Your task to perform on an android device: star an email in the gmail app Image 0: 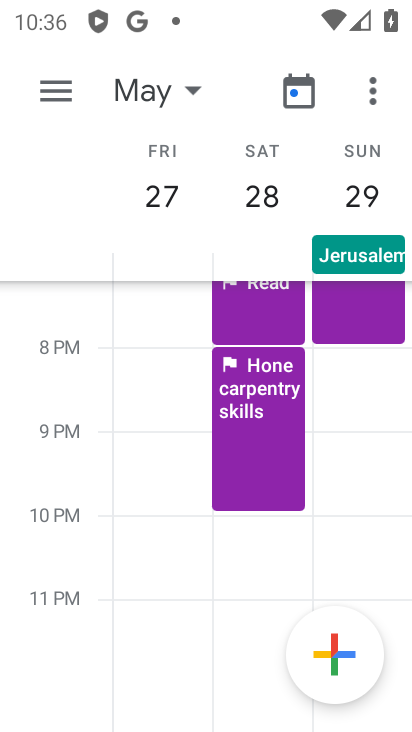
Step 0: press home button
Your task to perform on an android device: star an email in the gmail app Image 1: 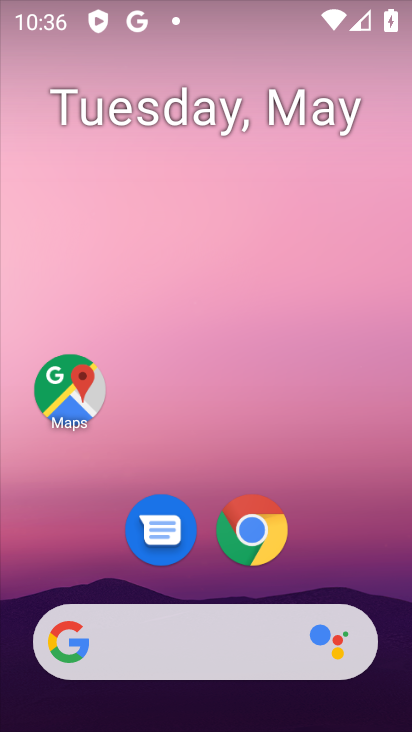
Step 1: drag from (259, 387) to (202, 137)
Your task to perform on an android device: star an email in the gmail app Image 2: 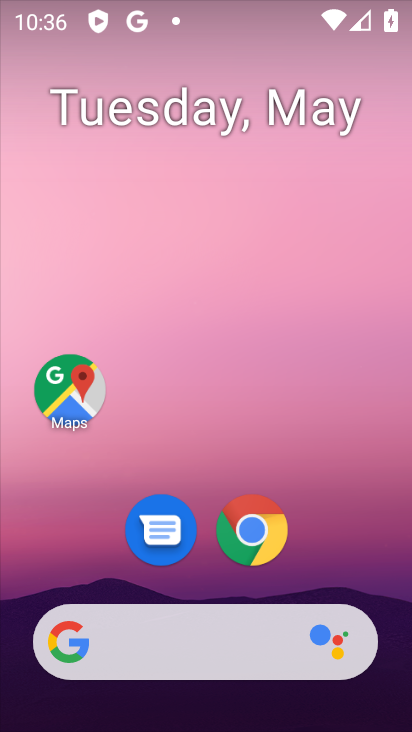
Step 2: drag from (345, 487) to (258, 108)
Your task to perform on an android device: star an email in the gmail app Image 3: 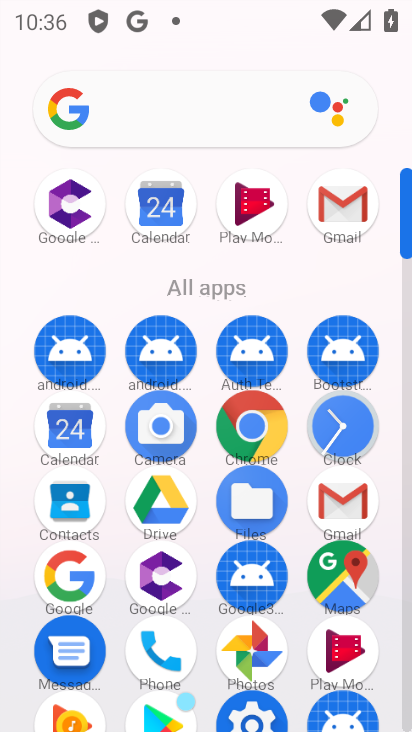
Step 3: click (355, 221)
Your task to perform on an android device: star an email in the gmail app Image 4: 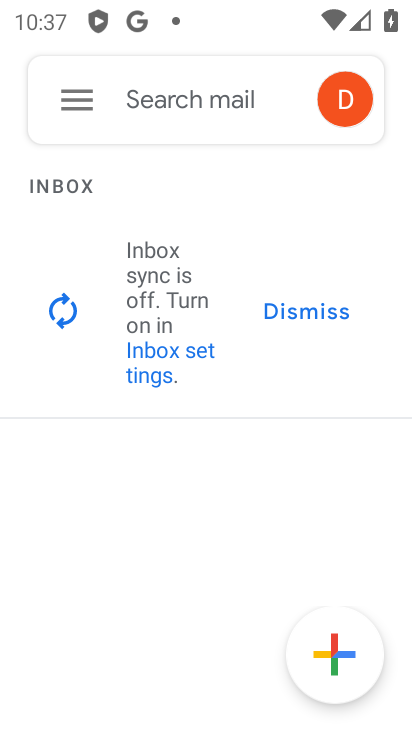
Step 4: click (68, 96)
Your task to perform on an android device: star an email in the gmail app Image 5: 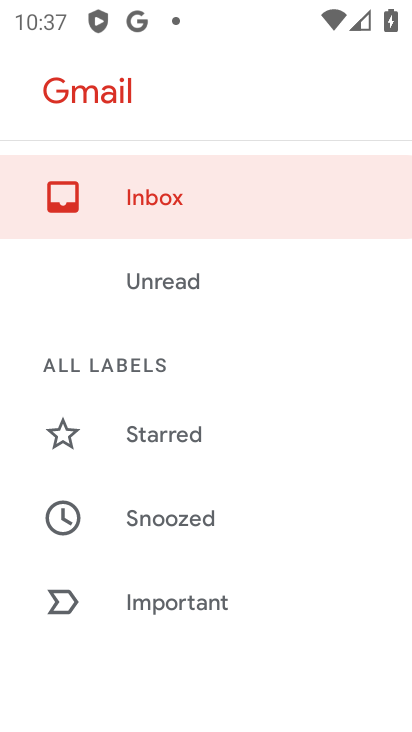
Step 5: drag from (207, 560) to (233, 224)
Your task to perform on an android device: star an email in the gmail app Image 6: 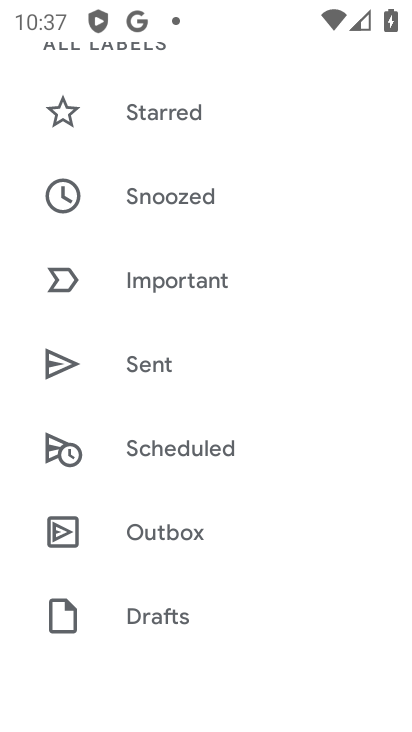
Step 6: drag from (109, 519) to (219, 222)
Your task to perform on an android device: star an email in the gmail app Image 7: 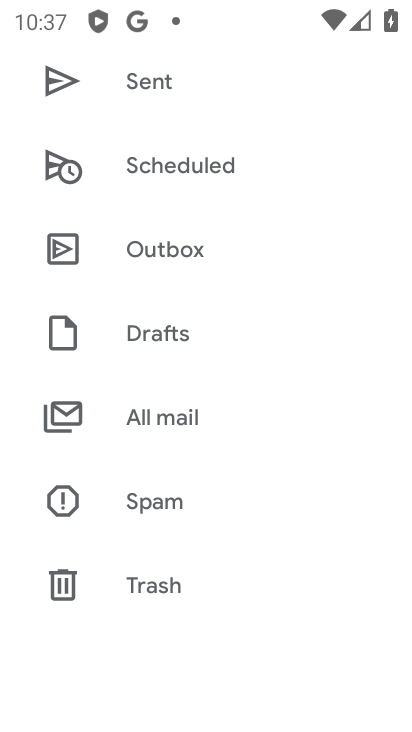
Step 7: drag from (188, 209) to (242, 245)
Your task to perform on an android device: star an email in the gmail app Image 8: 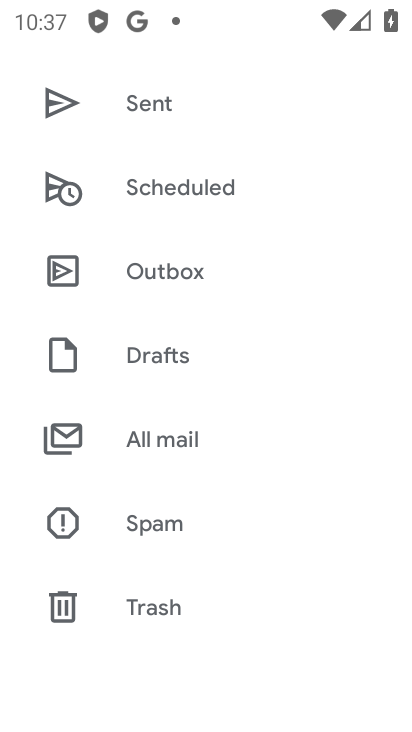
Step 8: click (159, 434)
Your task to perform on an android device: star an email in the gmail app Image 9: 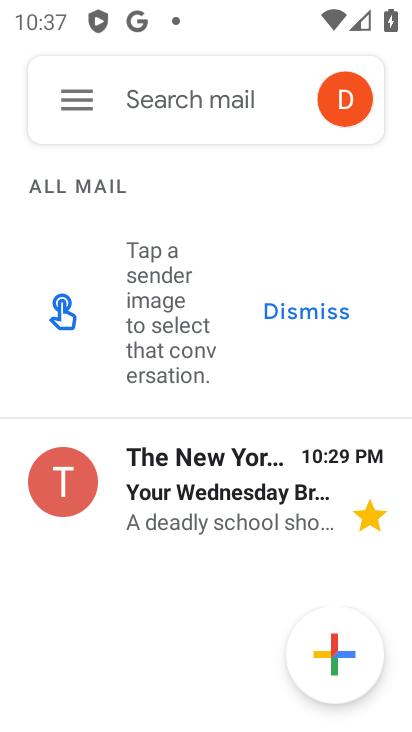
Step 9: task complete